Your task to perform on an android device: turn vacation reply on in the gmail app Image 0: 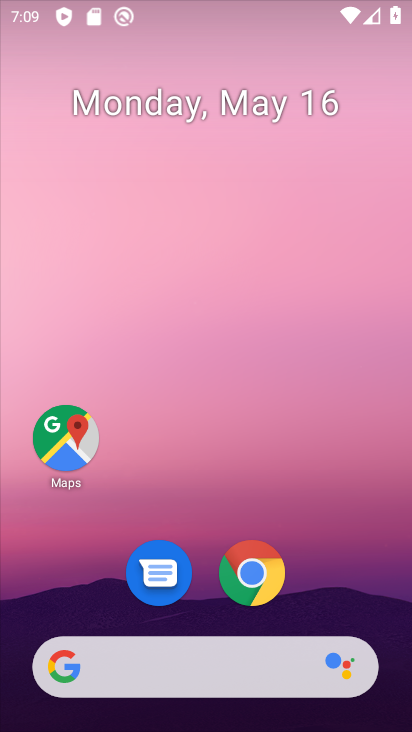
Step 0: drag from (364, 532) to (265, 32)
Your task to perform on an android device: turn vacation reply on in the gmail app Image 1: 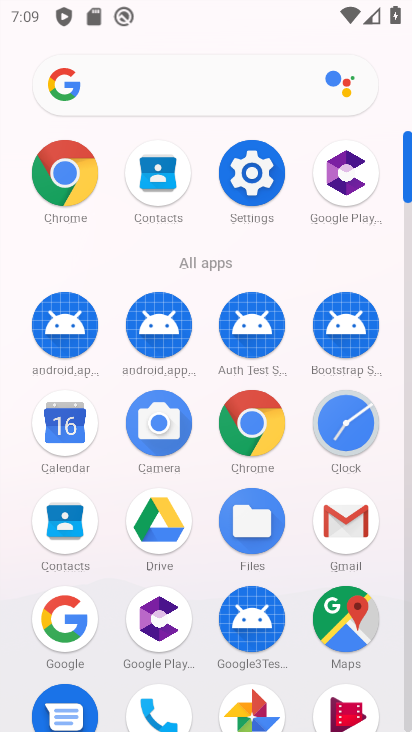
Step 1: click (370, 524)
Your task to perform on an android device: turn vacation reply on in the gmail app Image 2: 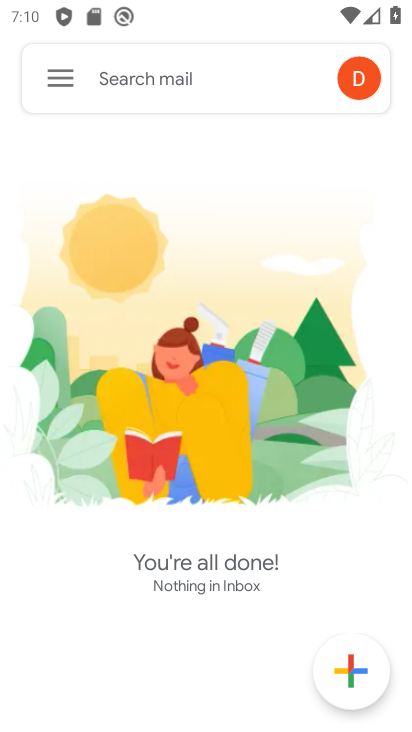
Step 2: click (65, 94)
Your task to perform on an android device: turn vacation reply on in the gmail app Image 3: 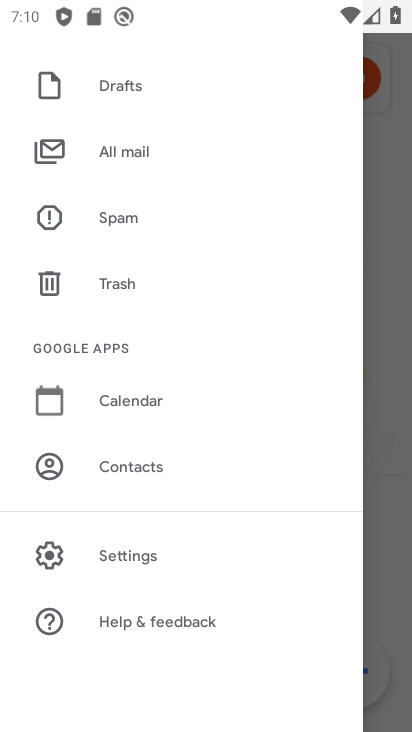
Step 3: click (135, 557)
Your task to perform on an android device: turn vacation reply on in the gmail app Image 4: 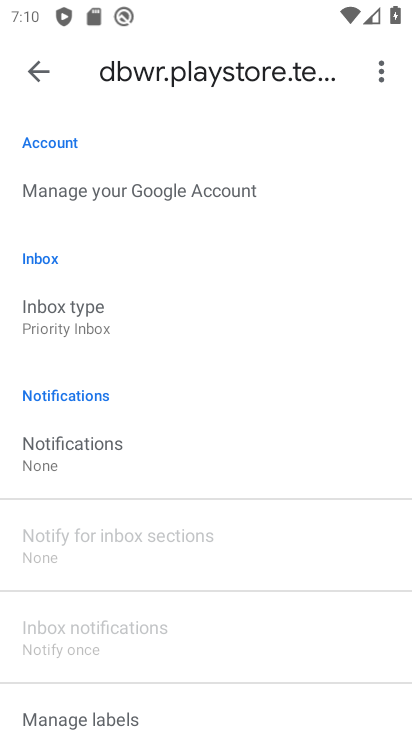
Step 4: drag from (106, 692) to (136, 248)
Your task to perform on an android device: turn vacation reply on in the gmail app Image 5: 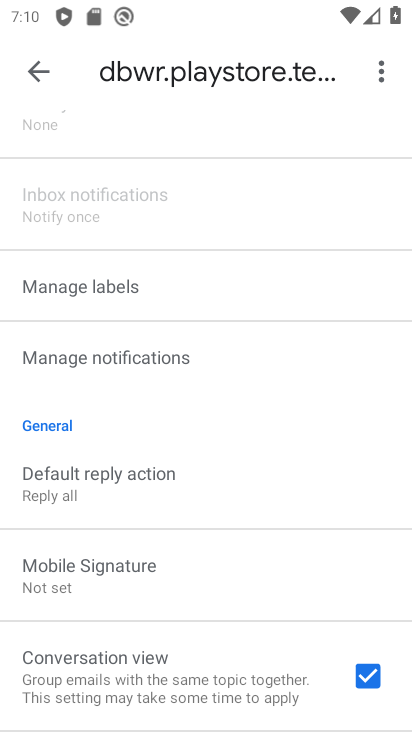
Step 5: drag from (115, 657) to (140, 212)
Your task to perform on an android device: turn vacation reply on in the gmail app Image 6: 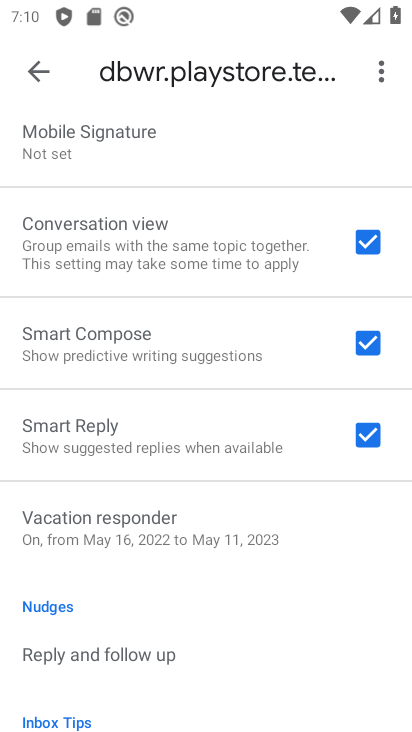
Step 6: click (130, 526)
Your task to perform on an android device: turn vacation reply on in the gmail app Image 7: 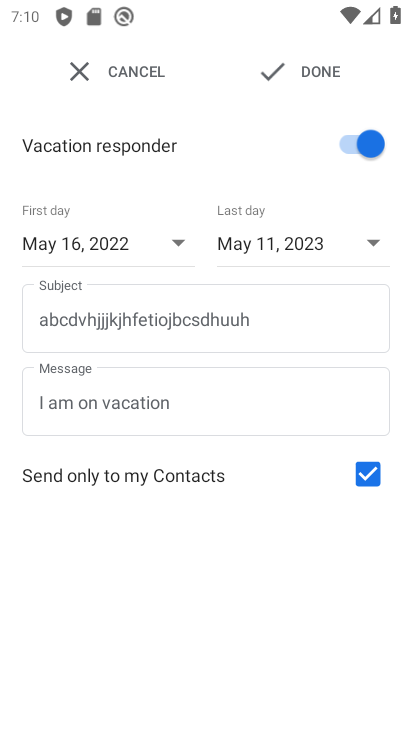
Step 7: task complete